Your task to perform on an android device: What's the weather? Image 0: 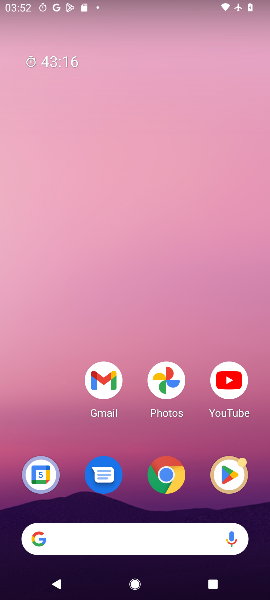
Step 0: press home button
Your task to perform on an android device: What's the weather? Image 1: 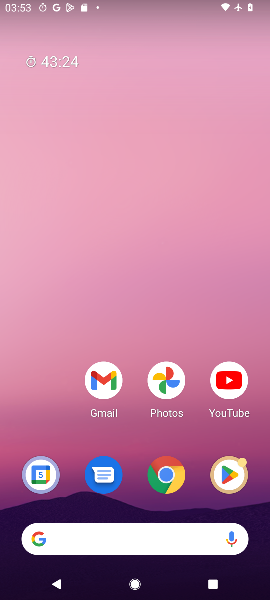
Step 1: click (126, 546)
Your task to perform on an android device: What's the weather? Image 2: 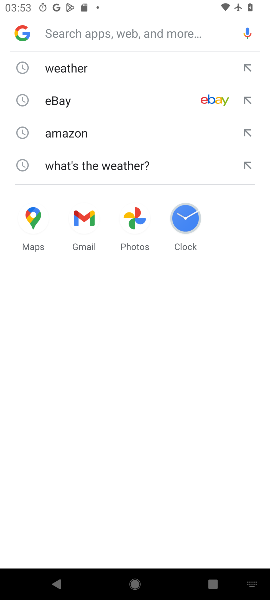
Step 2: click (84, 65)
Your task to perform on an android device: What's the weather? Image 3: 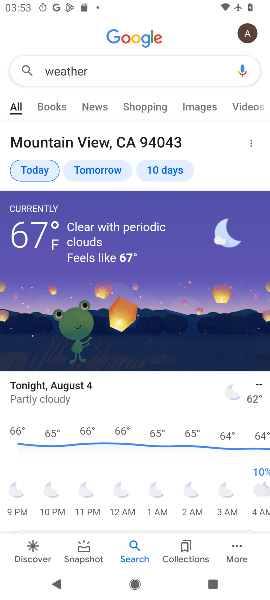
Step 3: task complete